Your task to perform on an android device: add a contact Image 0: 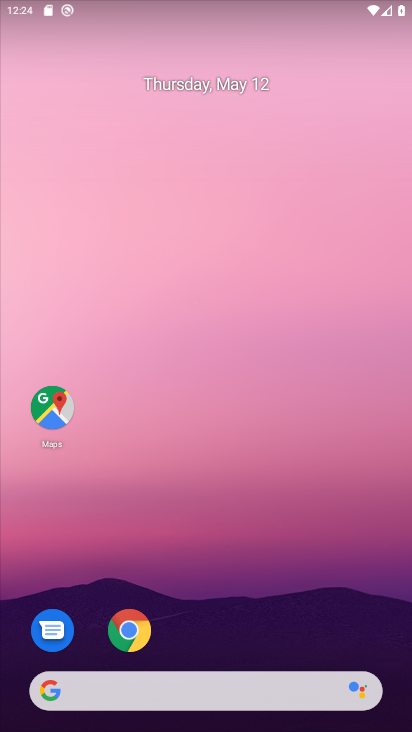
Step 0: drag from (265, 606) to (325, 45)
Your task to perform on an android device: add a contact Image 1: 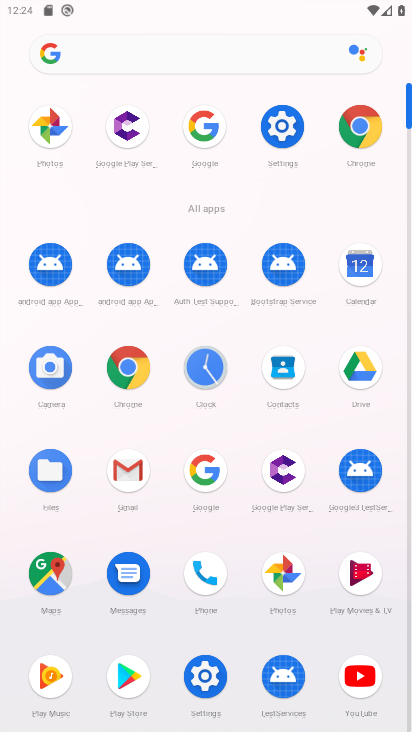
Step 1: click (282, 360)
Your task to perform on an android device: add a contact Image 2: 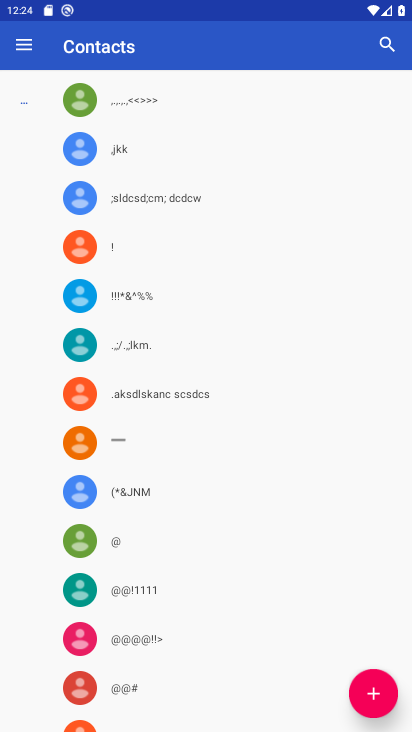
Step 2: click (370, 684)
Your task to perform on an android device: add a contact Image 3: 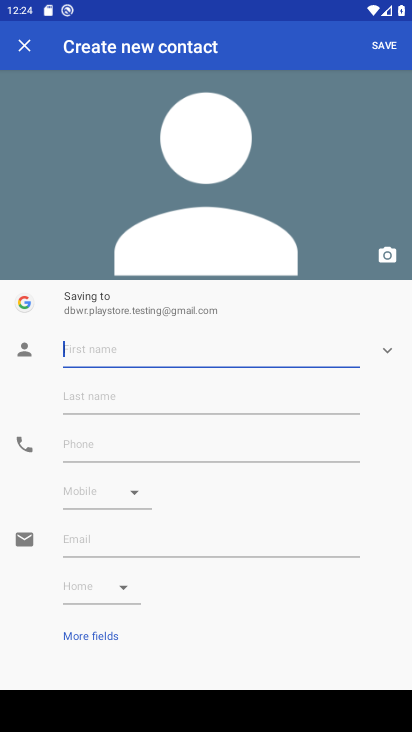
Step 3: click (162, 352)
Your task to perform on an android device: add a contact Image 4: 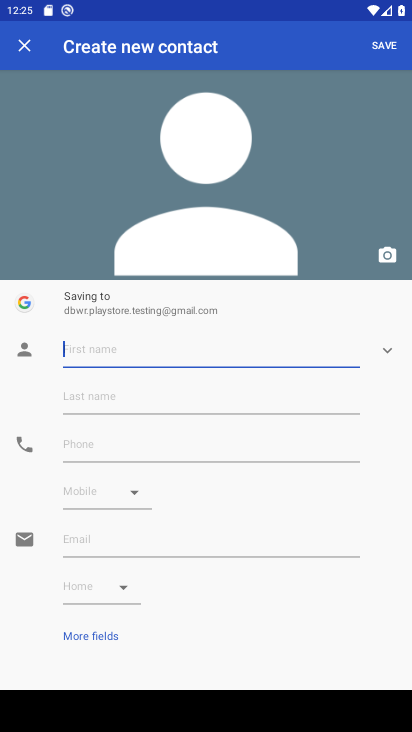
Step 4: type "mmm"
Your task to perform on an android device: add a contact Image 5: 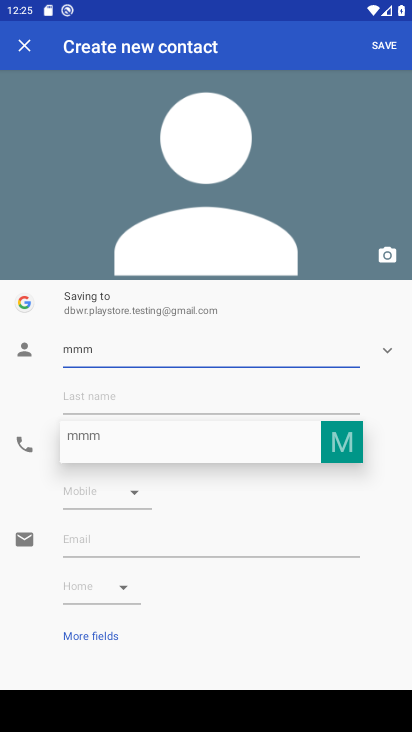
Step 5: click (113, 451)
Your task to perform on an android device: add a contact Image 6: 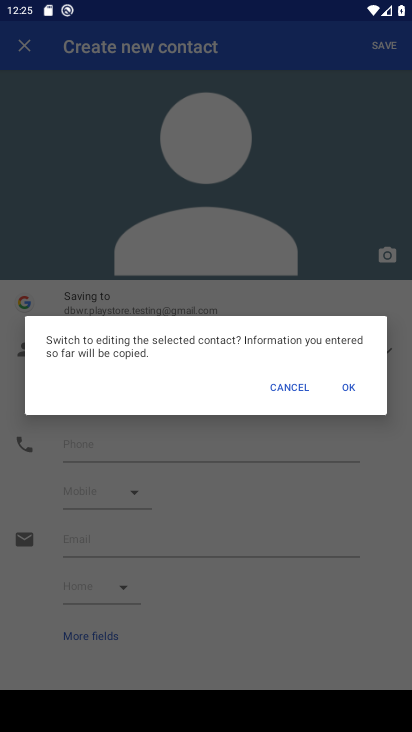
Step 6: click (403, 293)
Your task to perform on an android device: add a contact Image 7: 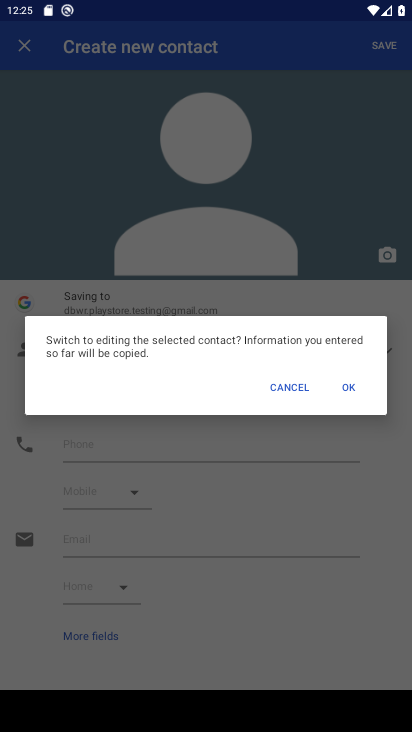
Step 7: click (296, 380)
Your task to perform on an android device: add a contact Image 8: 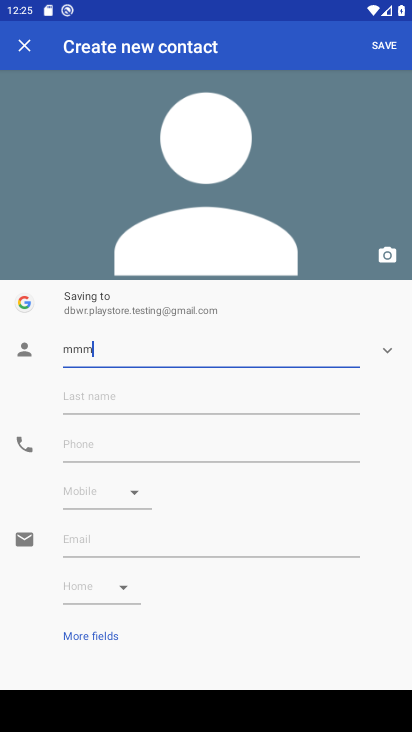
Step 8: click (96, 449)
Your task to perform on an android device: add a contact Image 9: 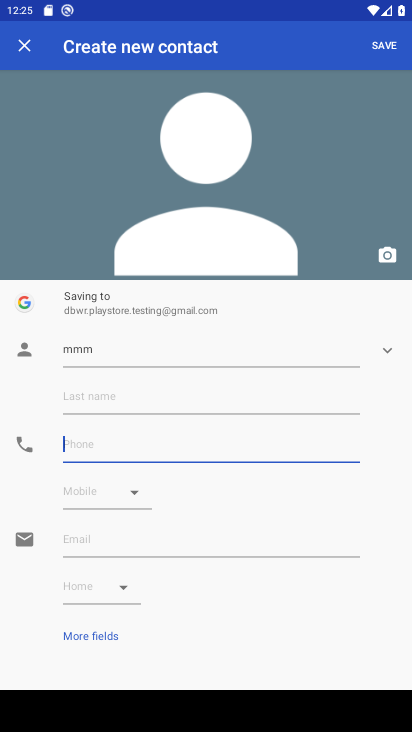
Step 9: type "00999"
Your task to perform on an android device: add a contact Image 10: 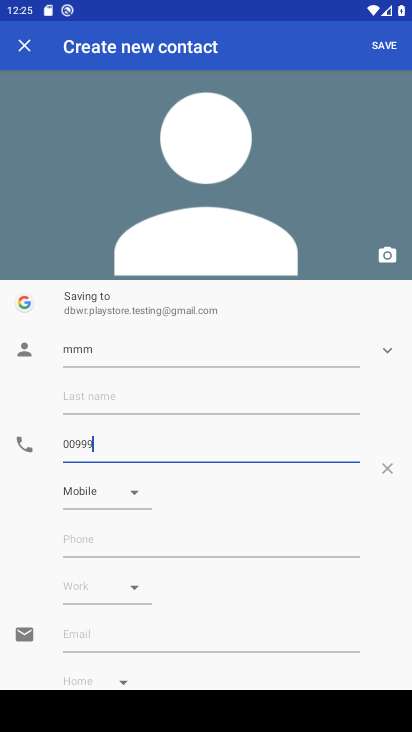
Step 10: click (381, 45)
Your task to perform on an android device: add a contact Image 11: 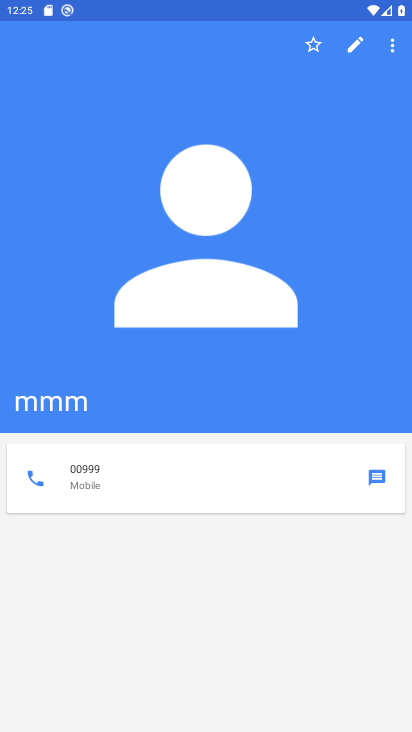
Step 11: task complete